Your task to perform on an android device: change the clock display to analog Image 0: 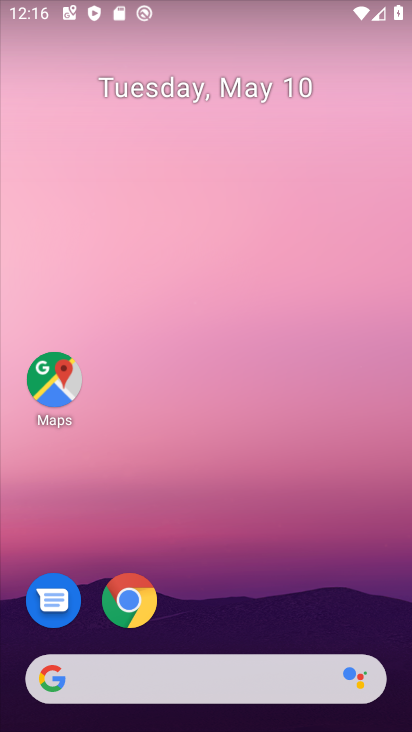
Step 0: drag from (215, 687) to (188, 110)
Your task to perform on an android device: change the clock display to analog Image 1: 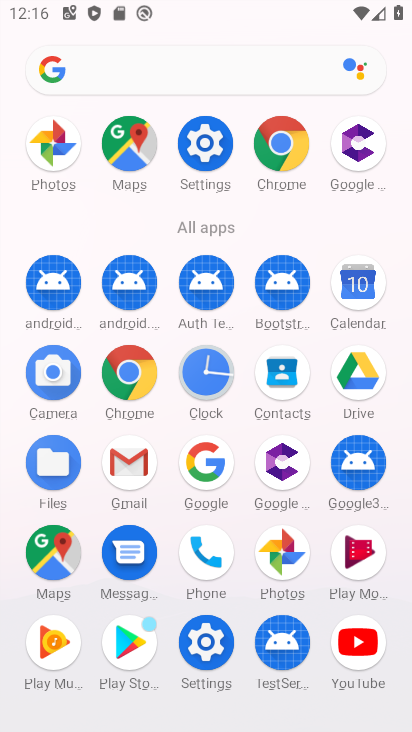
Step 1: click (215, 370)
Your task to perform on an android device: change the clock display to analog Image 2: 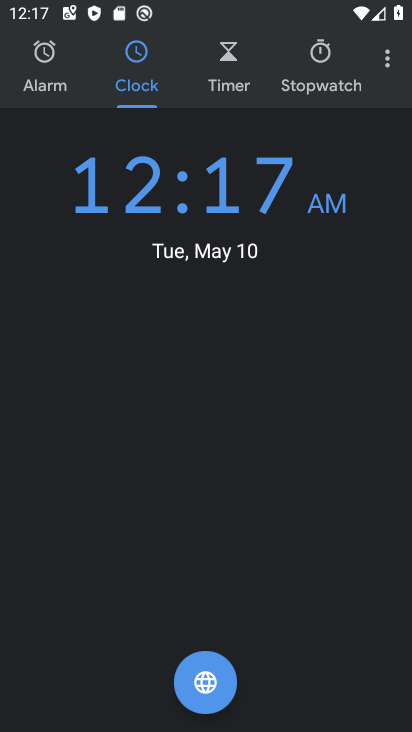
Step 2: click (380, 63)
Your task to perform on an android device: change the clock display to analog Image 3: 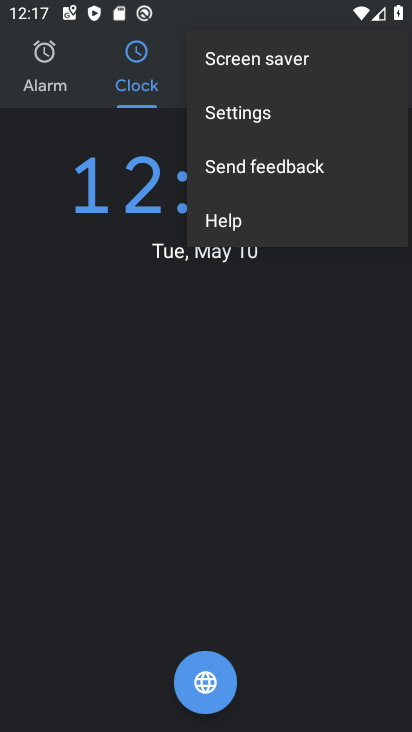
Step 3: click (232, 114)
Your task to perform on an android device: change the clock display to analog Image 4: 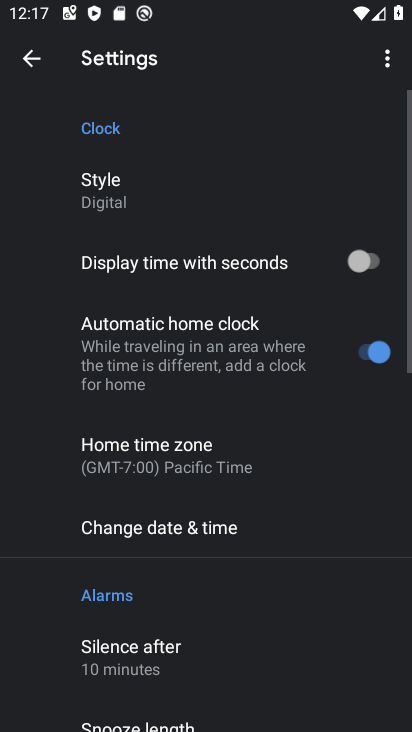
Step 4: click (102, 210)
Your task to perform on an android device: change the clock display to analog Image 5: 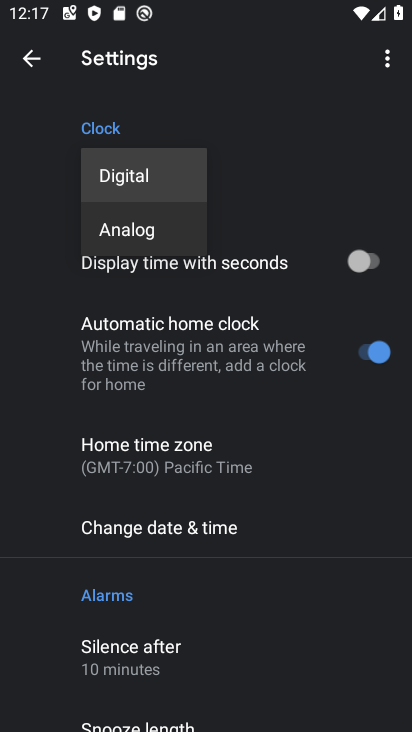
Step 5: click (162, 239)
Your task to perform on an android device: change the clock display to analog Image 6: 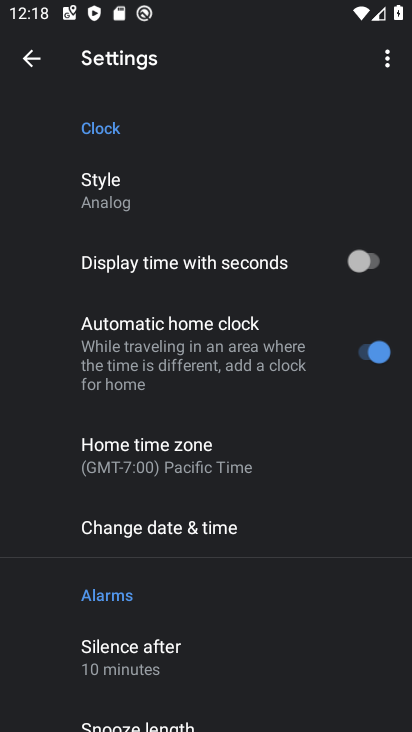
Step 6: task complete